Your task to perform on an android device: Do I have any events today? Image 0: 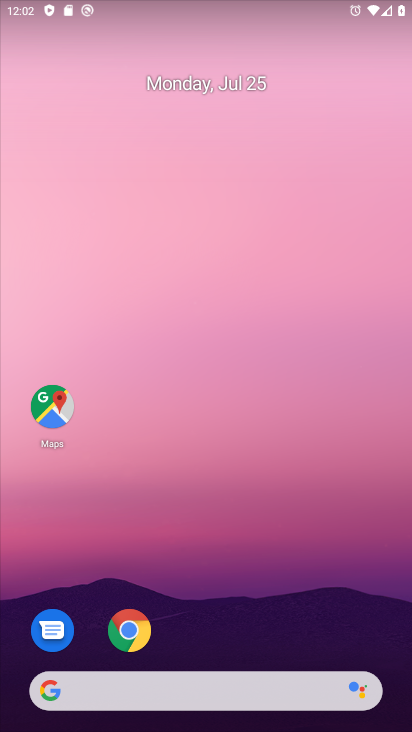
Step 0: drag from (124, 706) to (121, 208)
Your task to perform on an android device: Do I have any events today? Image 1: 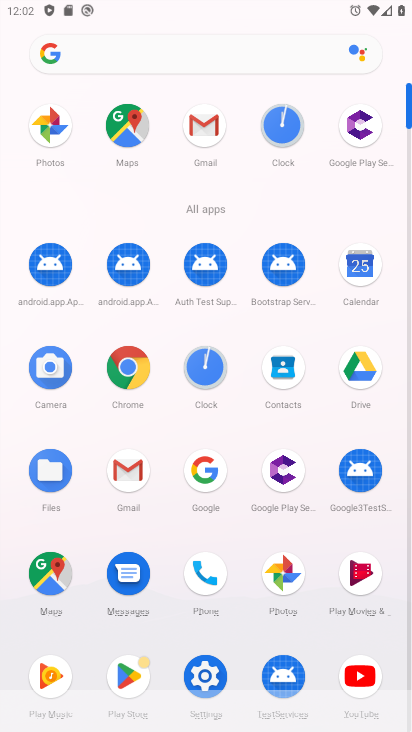
Step 1: click (353, 261)
Your task to perform on an android device: Do I have any events today? Image 2: 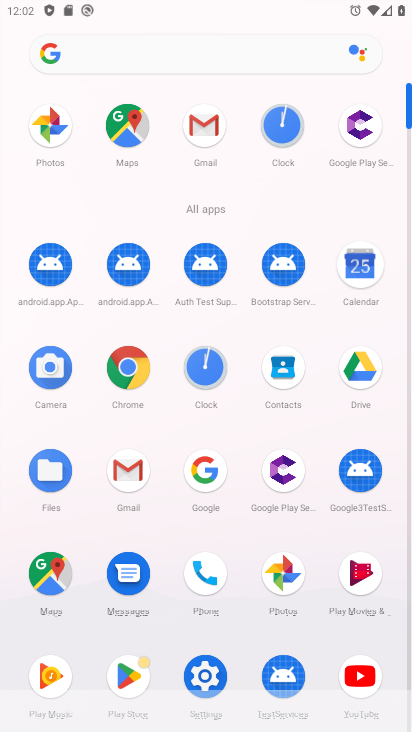
Step 2: click (354, 262)
Your task to perform on an android device: Do I have any events today? Image 3: 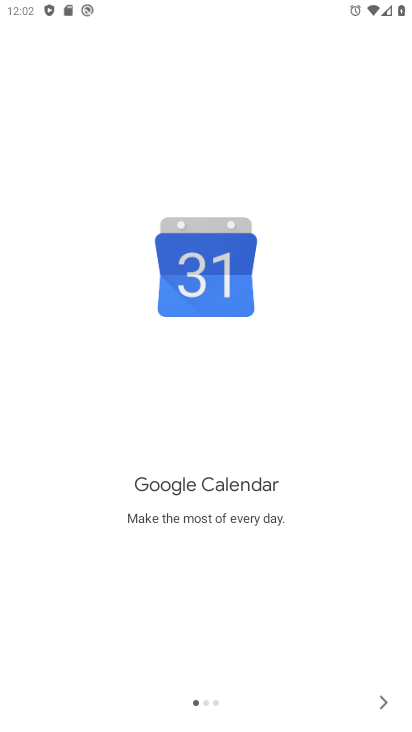
Step 3: click (385, 708)
Your task to perform on an android device: Do I have any events today? Image 4: 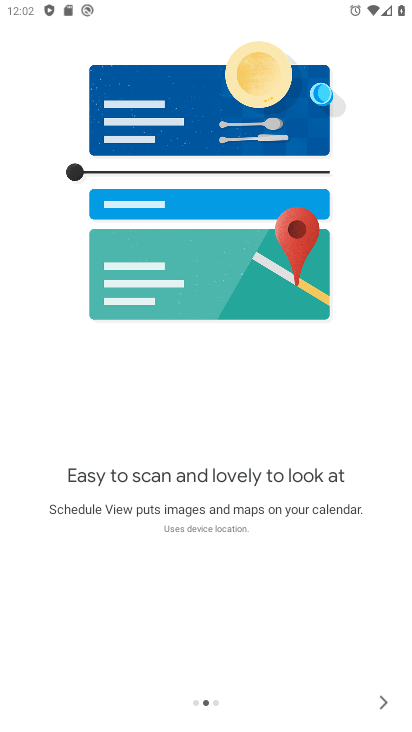
Step 4: click (378, 701)
Your task to perform on an android device: Do I have any events today? Image 5: 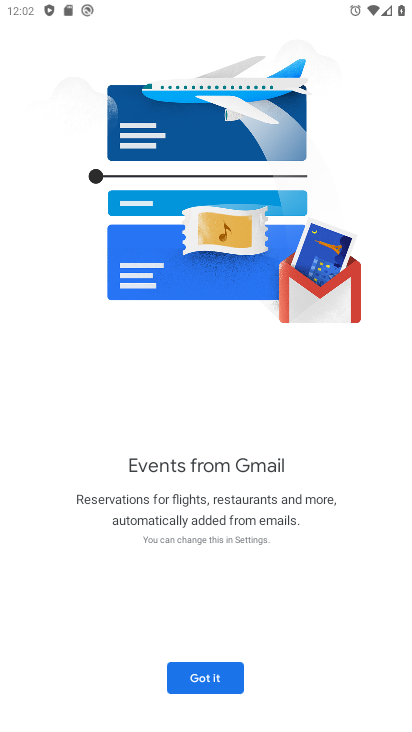
Step 5: click (385, 697)
Your task to perform on an android device: Do I have any events today? Image 6: 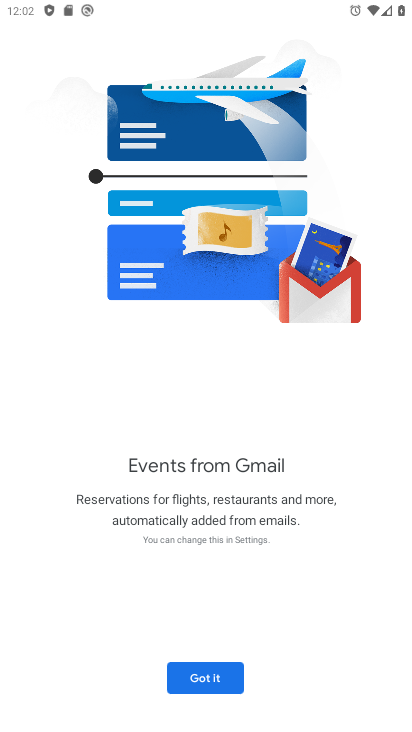
Step 6: click (390, 688)
Your task to perform on an android device: Do I have any events today? Image 7: 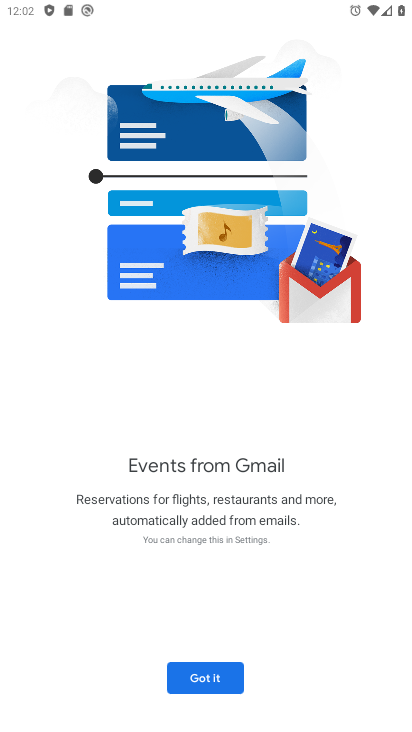
Step 7: click (356, 682)
Your task to perform on an android device: Do I have any events today? Image 8: 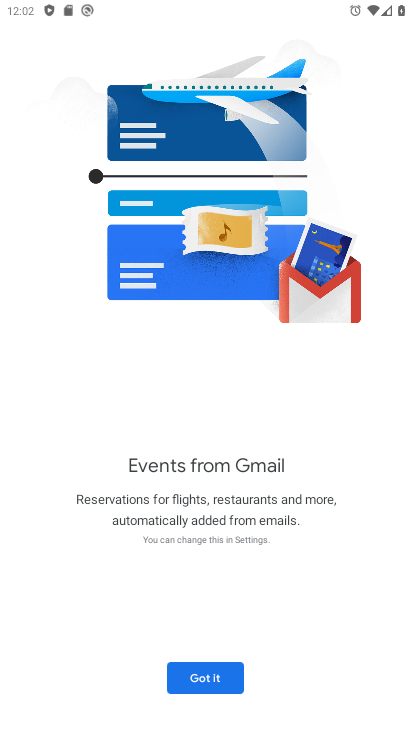
Step 8: click (382, 700)
Your task to perform on an android device: Do I have any events today? Image 9: 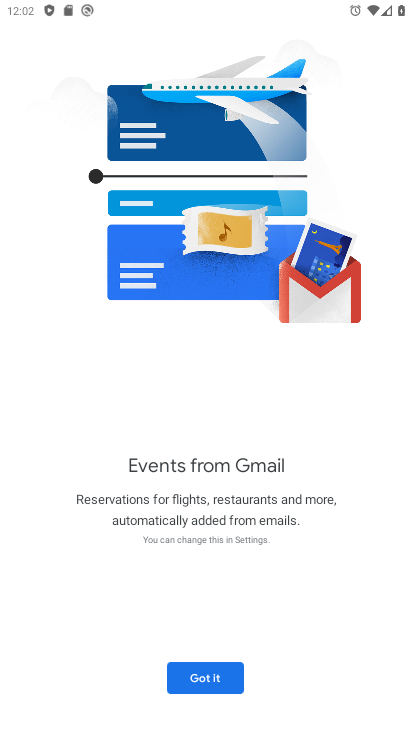
Step 9: click (241, 681)
Your task to perform on an android device: Do I have any events today? Image 10: 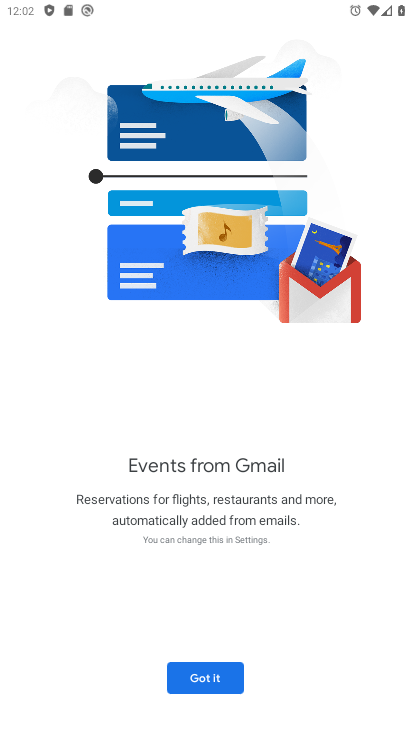
Step 10: click (233, 676)
Your task to perform on an android device: Do I have any events today? Image 11: 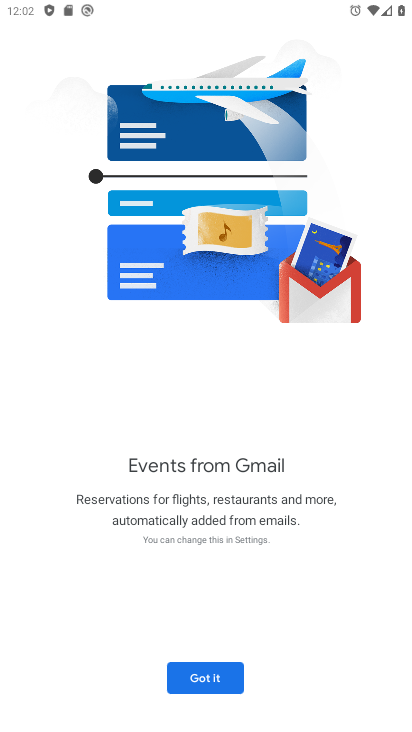
Step 11: click (217, 676)
Your task to perform on an android device: Do I have any events today? Image 12: 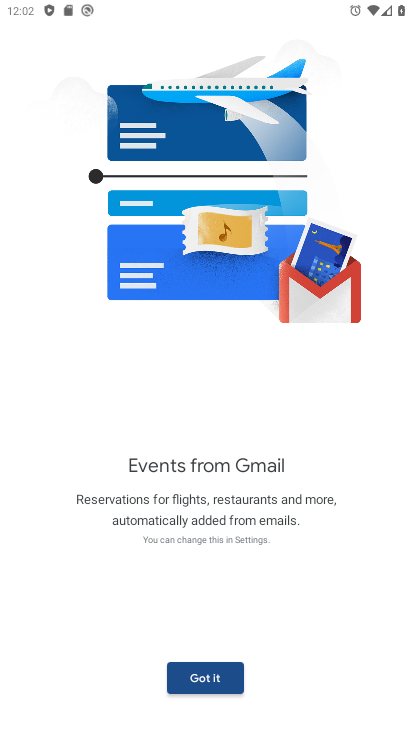
Step 12: click (218, 671)
Your task to perform on an android device: Do I have any events today? Image 13: 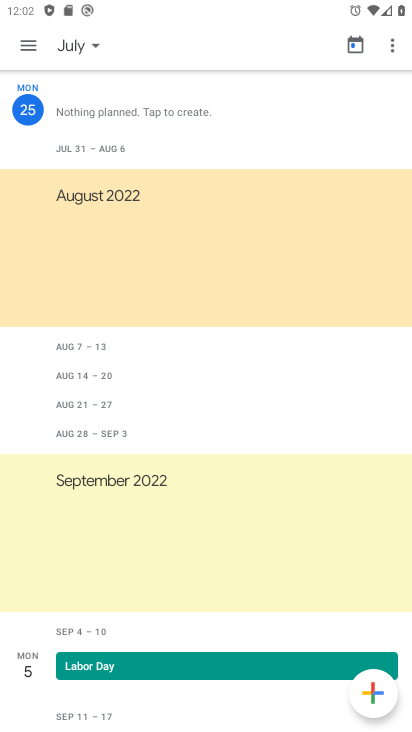
Step 13: click (96, 41)
Your task to perform on an android device: Do I have any events today? Image 14: 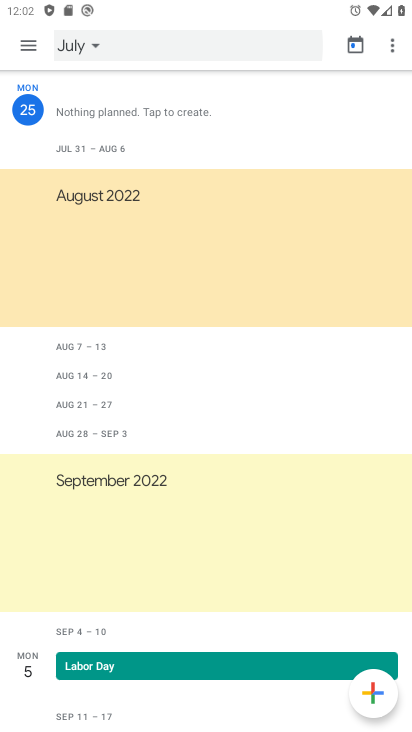
Step 14: click (93, 40)
Your task to perform on an android device: Do I have any events today? Image 15: 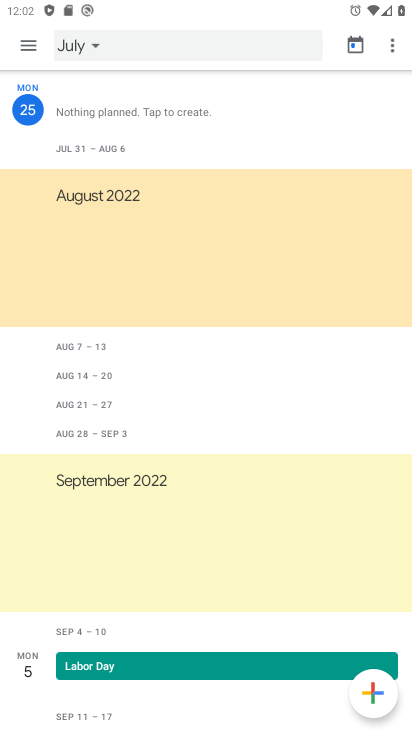
Step 15: click (92, 41)
Your task to perform on an android device: Do I have any events today? Image 16: 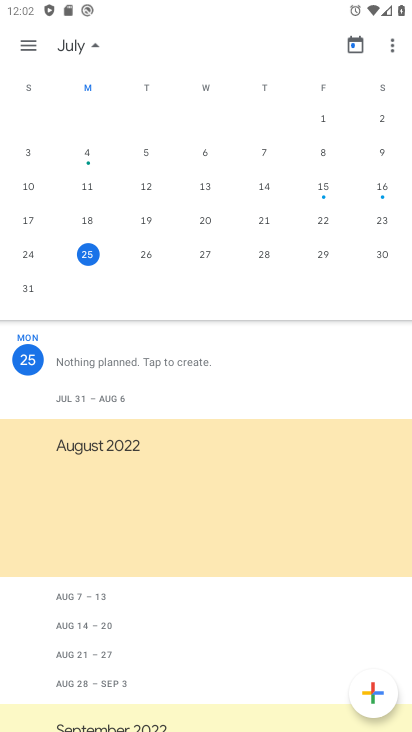
Step 16: click (199, 253)
Your task to perform on an android device: Do I have any events today? Image 17: 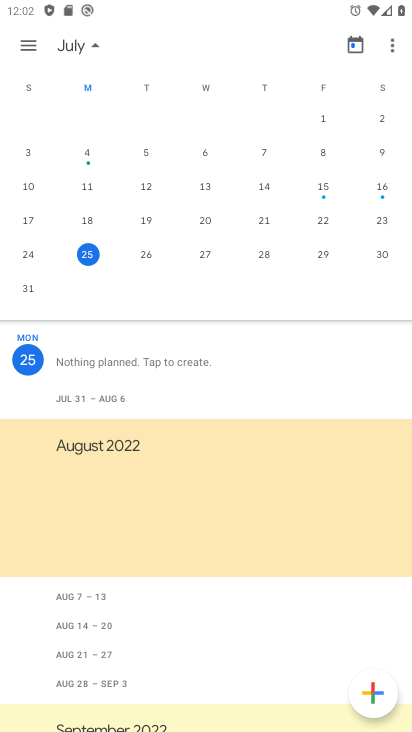
Step 17: click (197, 255)
Your task to perform on an android device: Do I have any events today? Image 18: 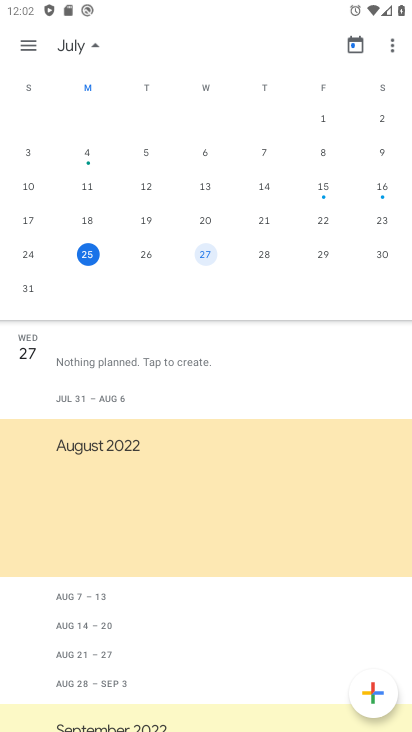
Step 18: click (145, 247)
Your task to perform on an android device: Do I have any events today? Image 19: 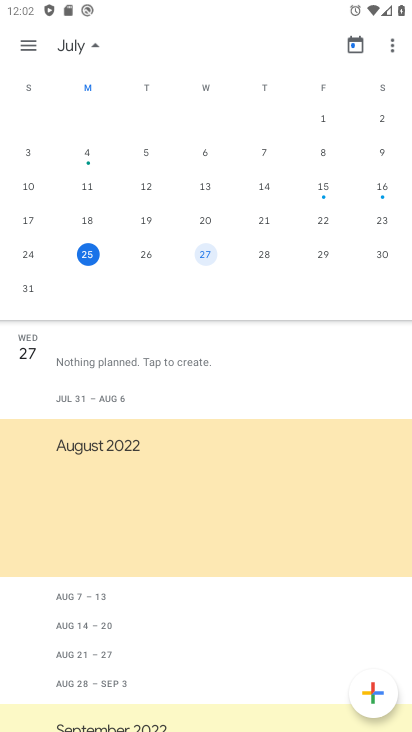
Step 19: click (140, 247)
Your task to perform on an android device: Do I have any events today? Image 20: 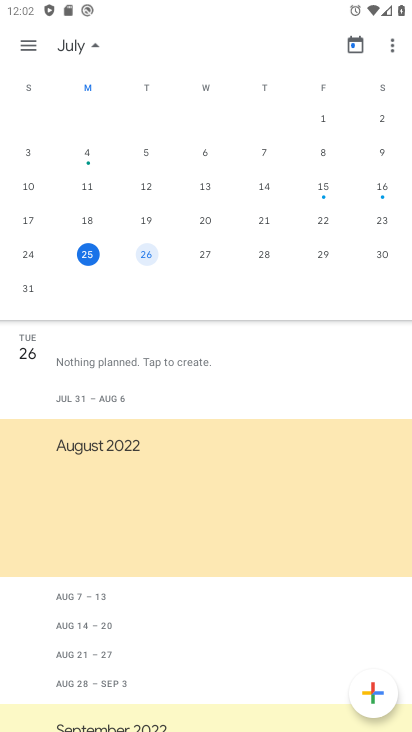
Step 20: click (92, 251)
Your task to perform on an android device: Do I have any events today? Image 21: 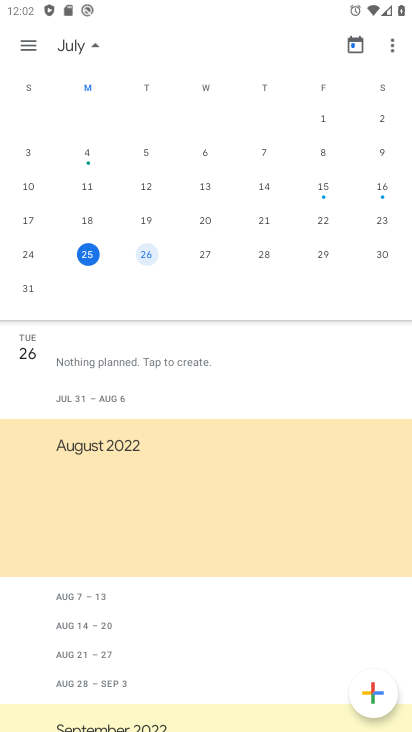
Step 21: click (89, 248)
Your task to perform on an android device: Do I have any events today? Image 22: 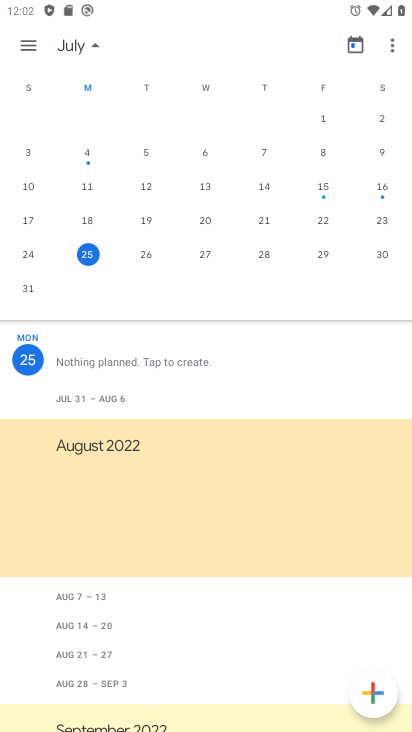
Step 22: click (86, 245)
Your task to perform on an android device: Do I have any events today? Image 23: 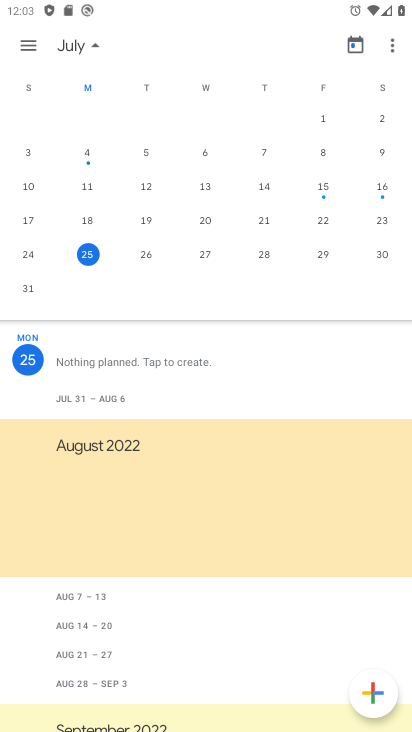
Step 23: task complete